Your task to perform on an android device: toggle improve location accuracy Image 0: 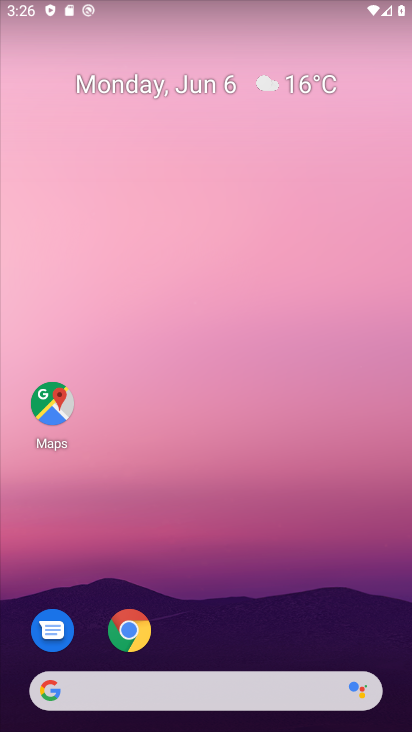
Step 0: drag from (285, 547) to (197, 37)
Your task to perform on an android device: toggle improve location accuracy Image 1: 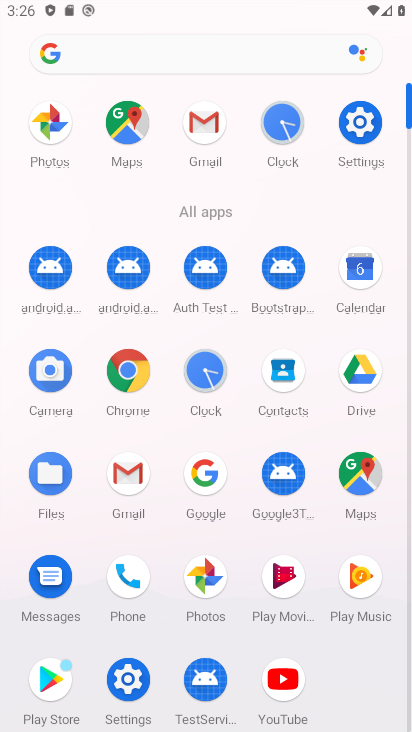
Step 1: click (346, 125)
Your task to perform on an android device: toggle improve location accuracy Image 2: 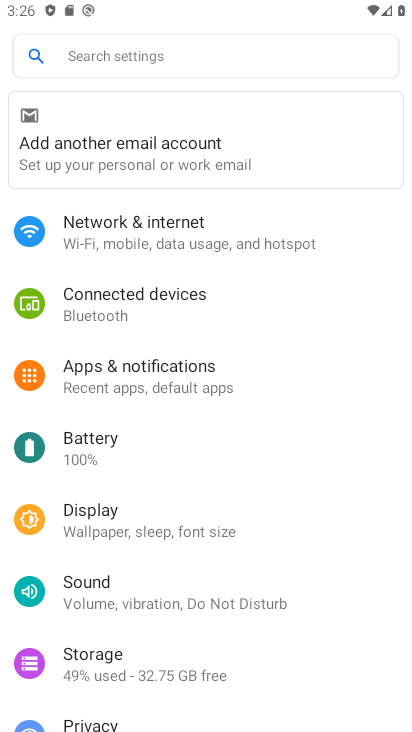
Step 2: drag from (234, 595) to (190, 66)
Your task to perform on an android device: toggle improve location accuracy Image 3: 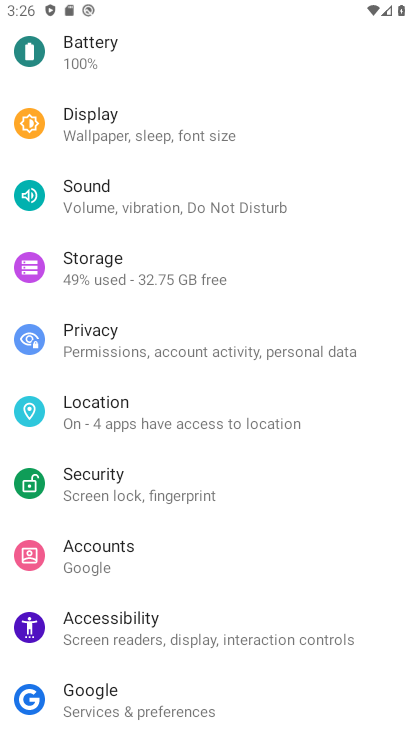
Step 3: click (221, 415)
Your task to perform on an android device: toggle improve location accuracy Image 4: 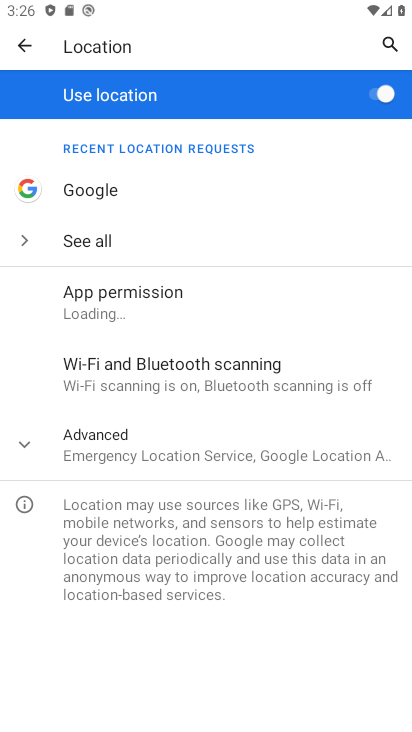
Step 4: click (216, 435)
Your task to perform on an android device: toggle improve location accuracy Image 5: 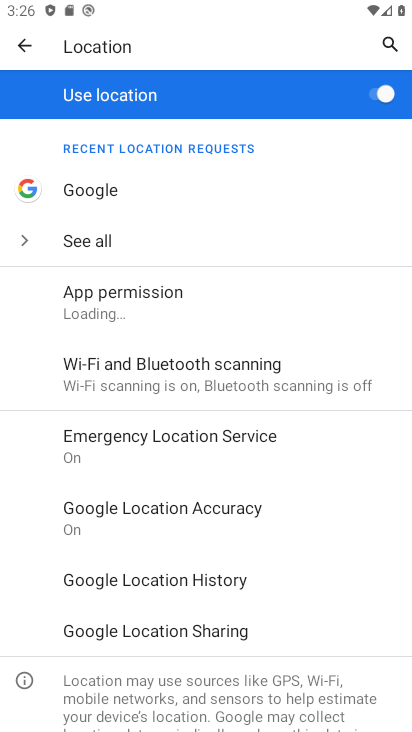
Step 5: click (232, 517)
Your task to perform on an android device: toggle improve location accuracy Image 6: 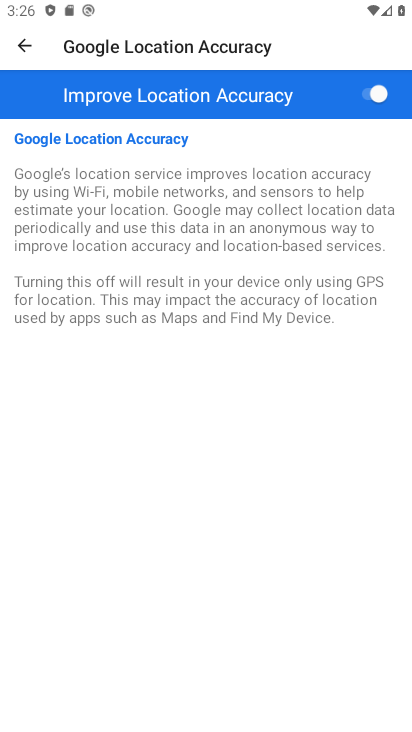
Step 6: click (390, 85)
Your task to perform on an android device: toggle improve location accuracy Image 7: 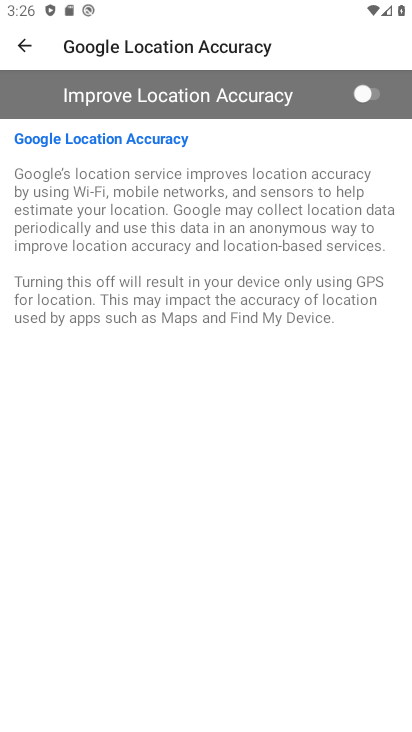
Step 7: task complete